Your task to perform on an android device: Open notification settings Image 0: 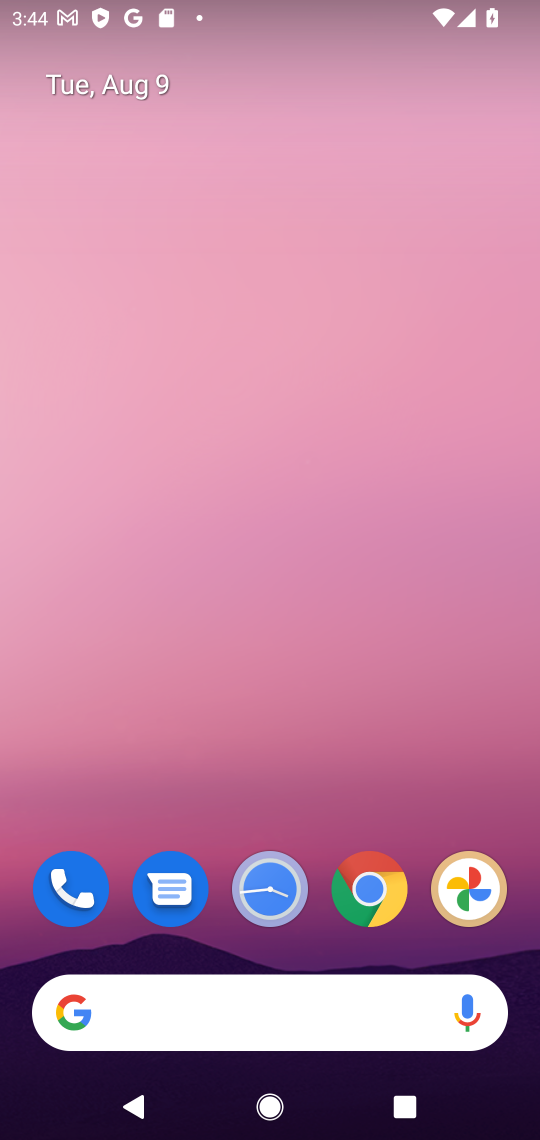
Step 0: drag from (304, 692) to (381, 0)
Your task to perform on an android device: Open notification settings Image 1: 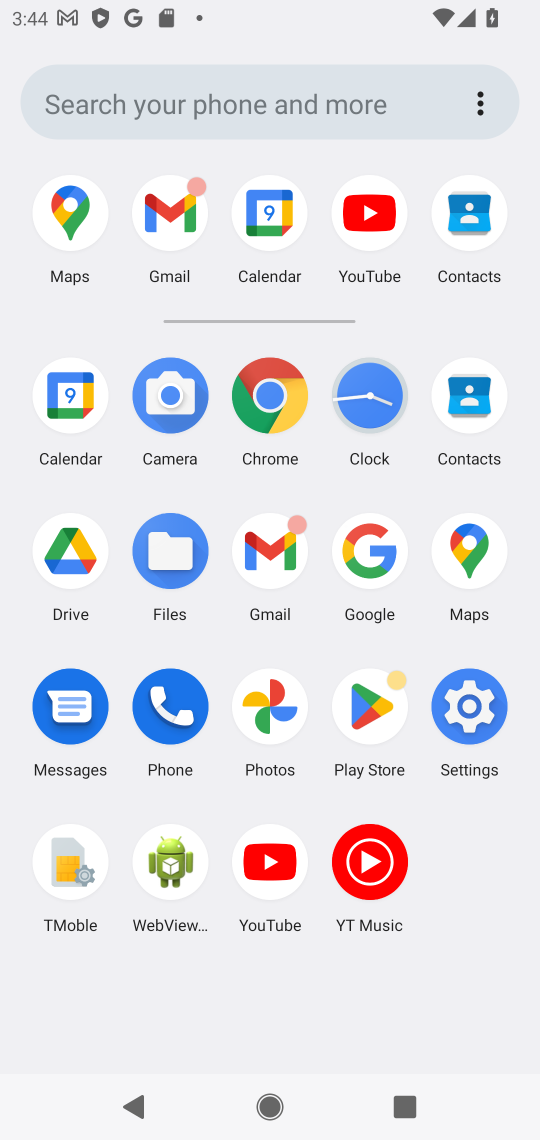
Step 1: click (464, 693)
Your task to perform on an android device: Open notification settings Image 2: 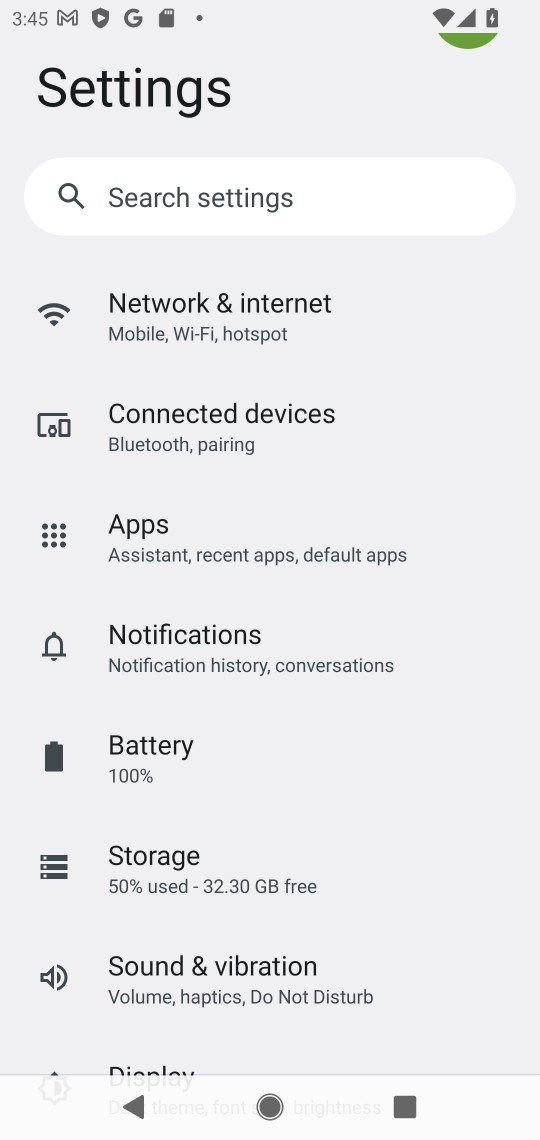
Step 2: click (246, 639)
Your task to perform on an android device: Open notification settings Image 3: 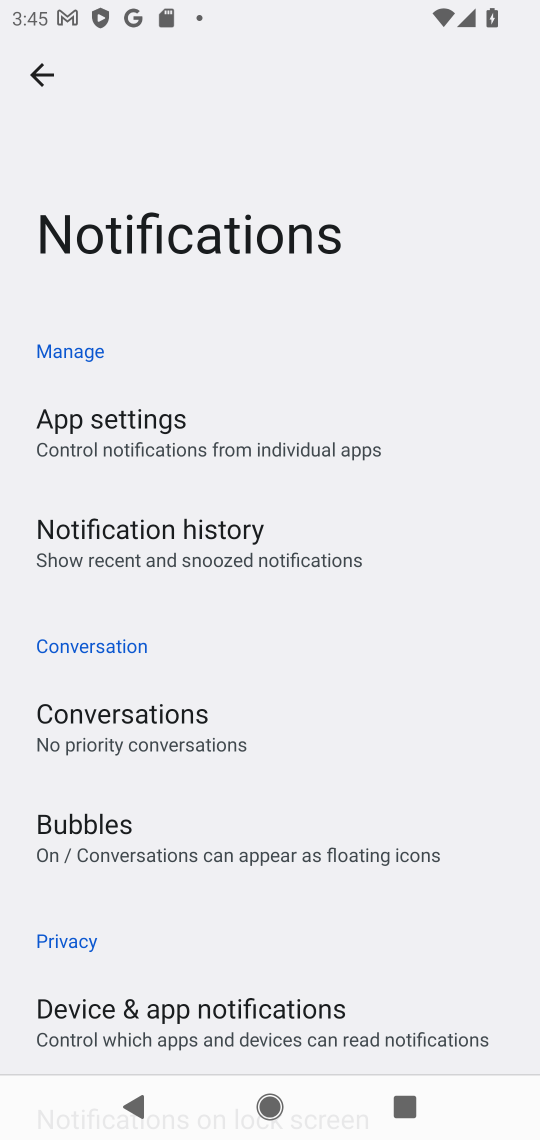
Step 3: task complete